Your task to perform on an android device: Go to Google maps Image 0: 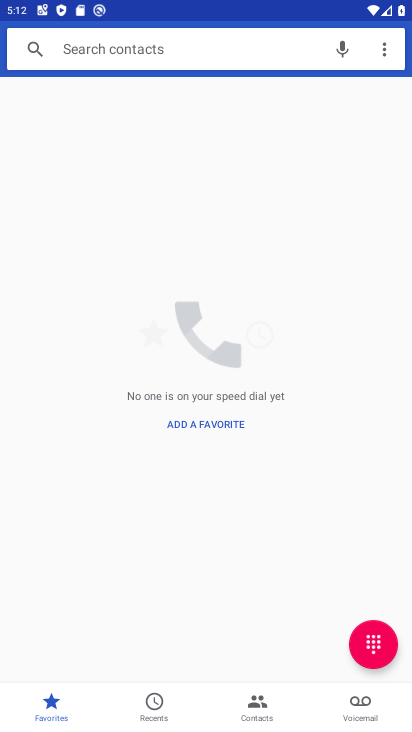
Step 0: press home button
Your task to perform on an android device: Go to Google maps Image 1: 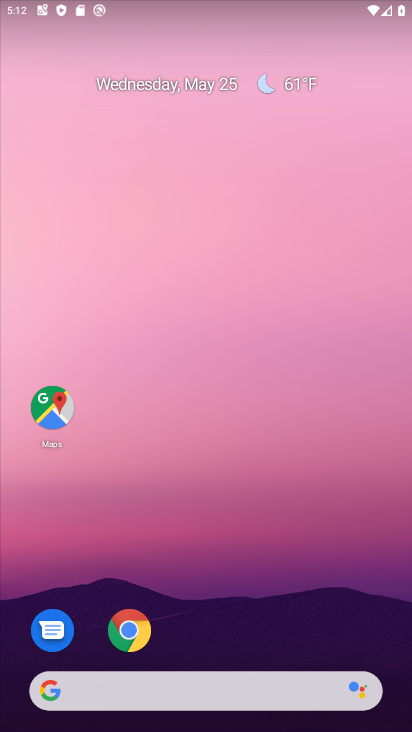
Step 1: click (36, 394)
Your task to perform on an android device: Go to Google maps Image 2: 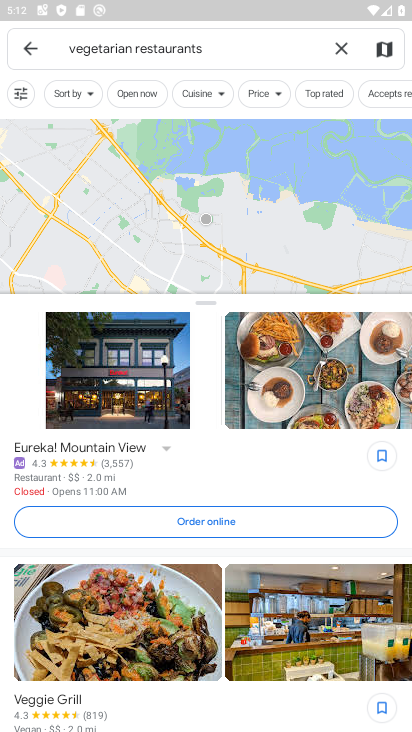
Step 2: task complete